Your task to perform on an android device: create a new album in the google photos Image 0: 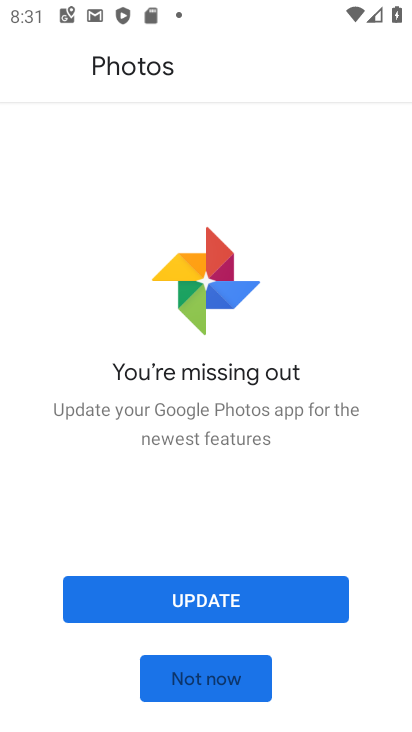
Step 0: click (237, 682)
Your task to perform on an android device: create a new album in the google photos Image 1: 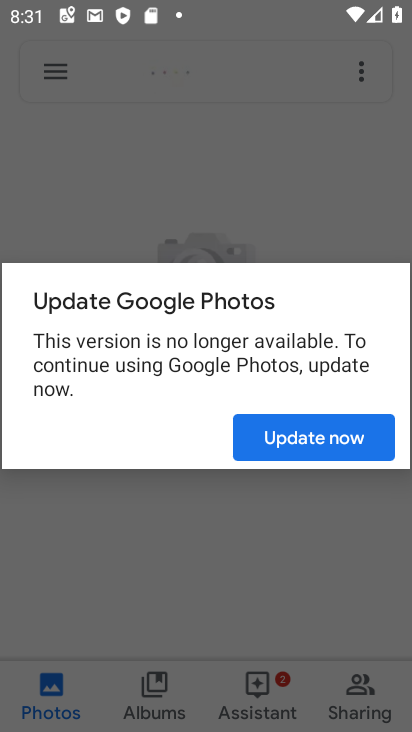
Step 1: click (269, 442)
Your task to perform on an android device: create a new album in the google photos Image 2: 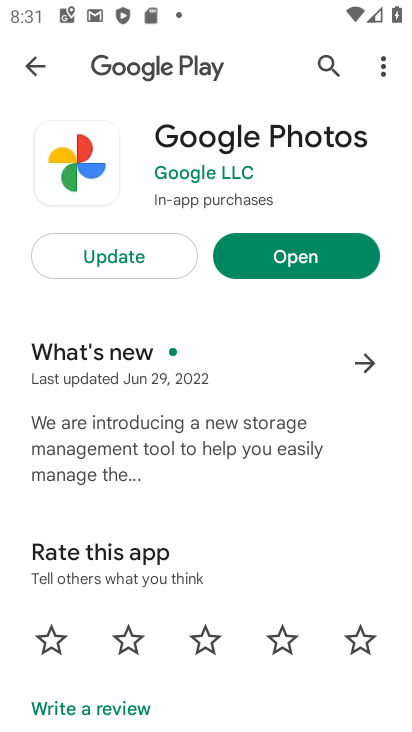
Step 2: click (342, 263)
Your task to perform on an android device: create a new album in the google photos Image 3: 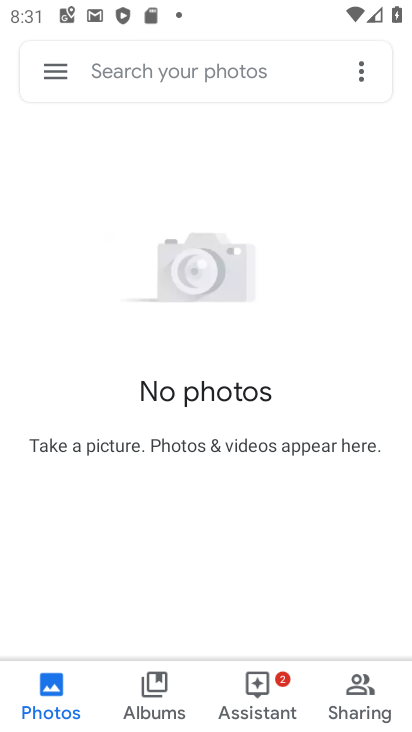
Step 3: click (164, 683)
Your task to perform on an android device: create a new album in the google photos Image 4: 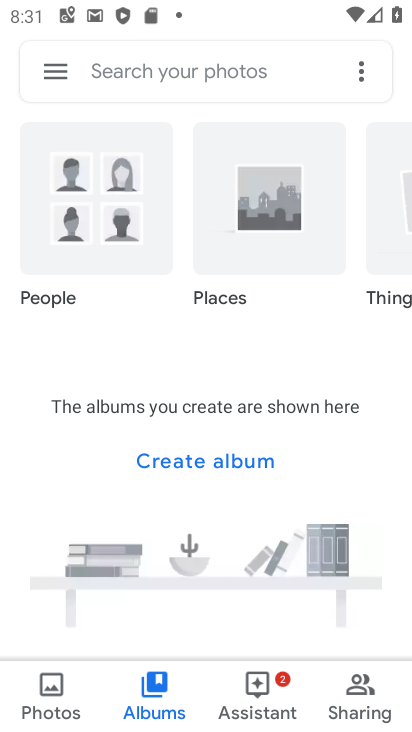
Step 4: click (197, 461)
Your task to perform on an android device: create a new album in the google photos Image 5: 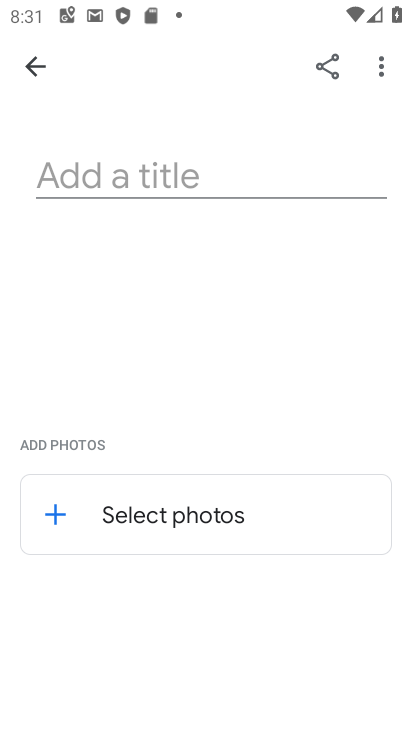
Step 5: click (194, 171)
Your task to perform on an android device: create a new album in the google photos Image 6: 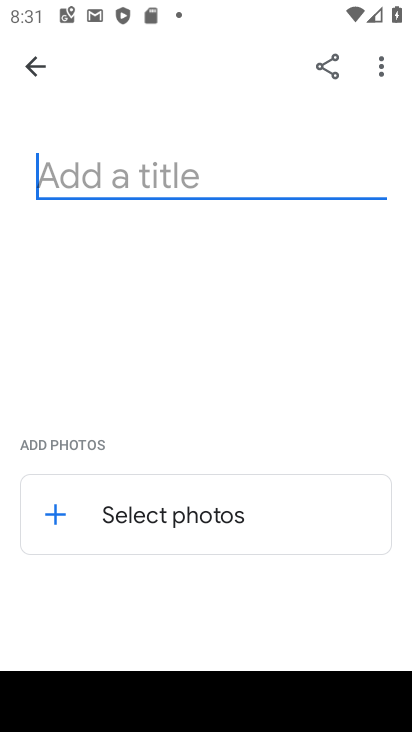
Step 6: type "Rajan"
Your task to perform on an android device: create a new album in the google photos Image 7: 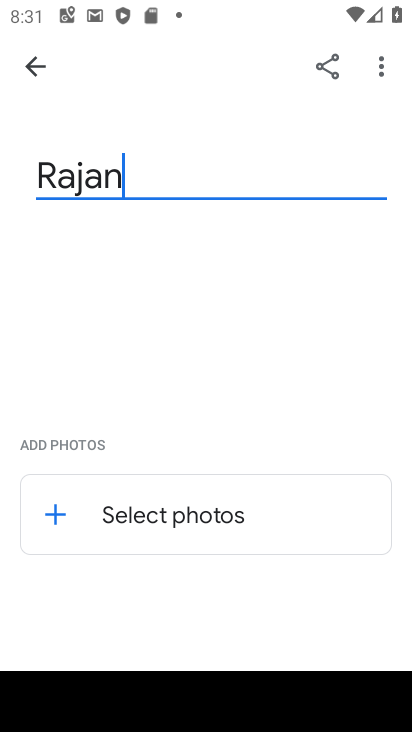
Step 7: click (57, 501)
Your task to perform on an android device: create a new album in the google photos Image 8: 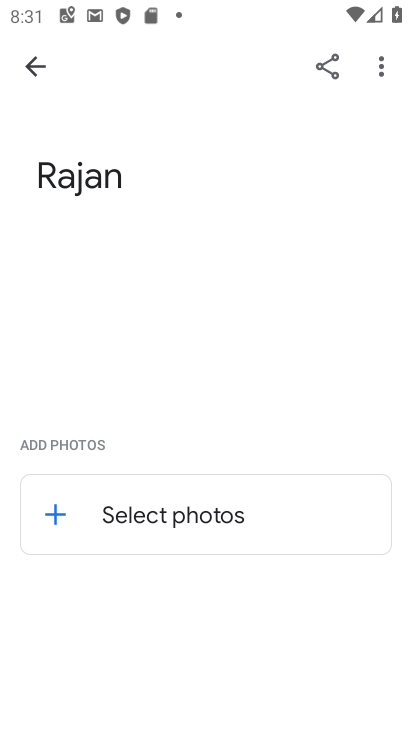
Step 8: click (52, 509)
Your task to perform on an android device: create a new album in the google photos Image 9: 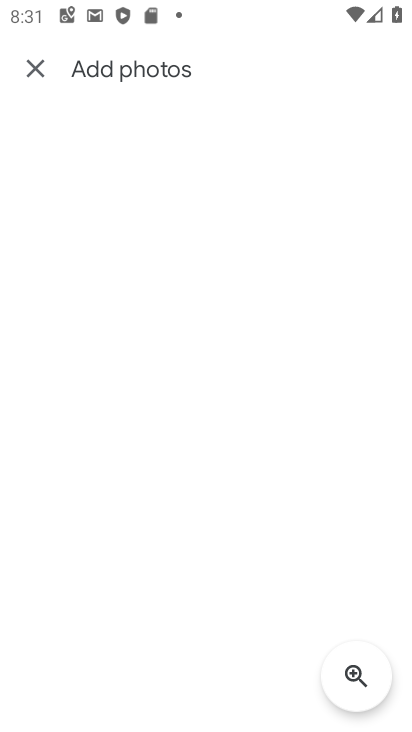
Step 9: click (30, 57)
Your task to perform on an android device: create a new album in the google photos Image 10: 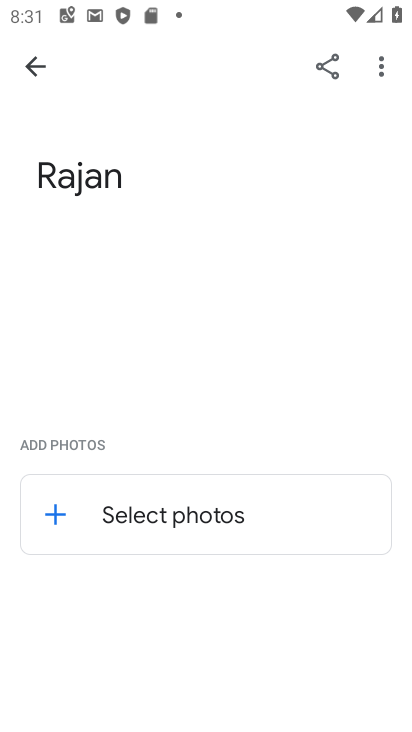
Step 10: click (34, 56)
Your task to perform on an android device: create a new album in the google photos Image 11: 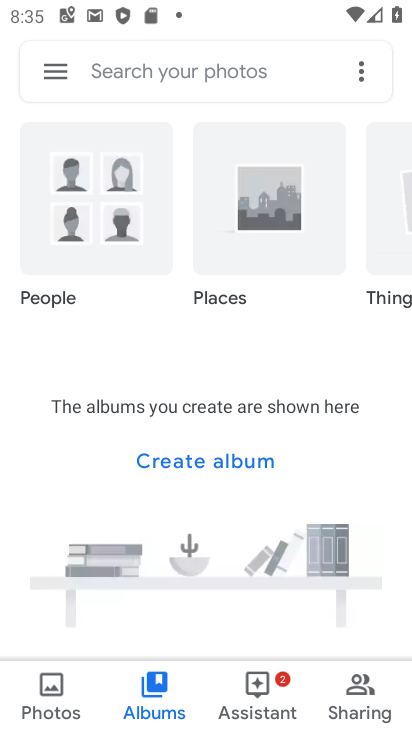
Step 11: task complete